Your task to perform on an android device: Go to ESPN.com Image 0: 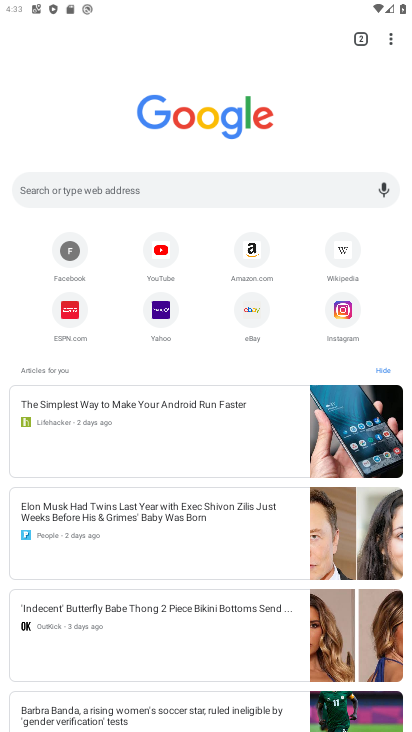
Step 0: click (74, 307)
Your task to perform on an android device: Go to ESPN.com Image 1: 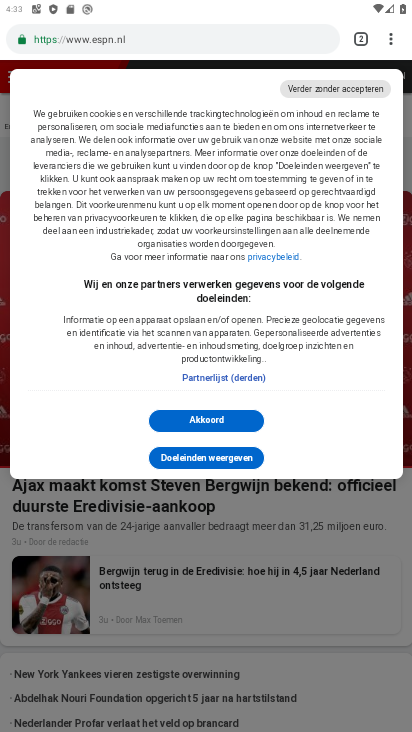
Step 1: drag from (183, 554) to (225, 371)
Your task to perform on an android device: Go to ESPN.com Image 2: 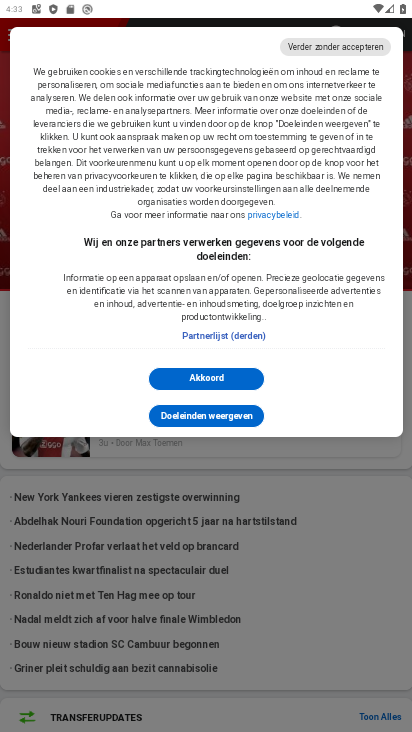
Step 2: click (214, 373)
Your task to perform on an android device: Go to ESPN.com Image 3: 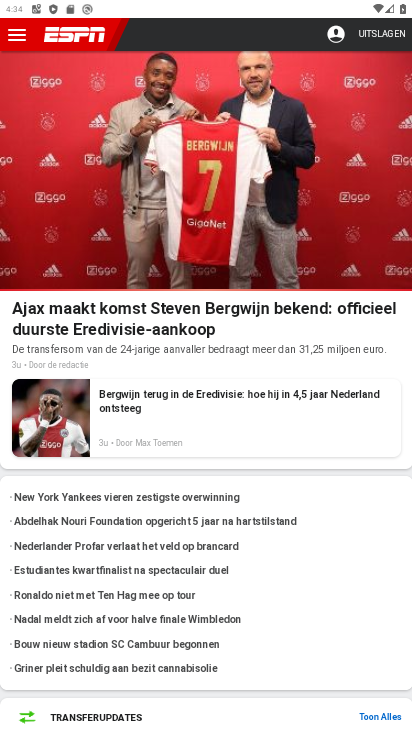
Step 3: task complete